Your task to perform on an android device: change keyboard looks Image 0: 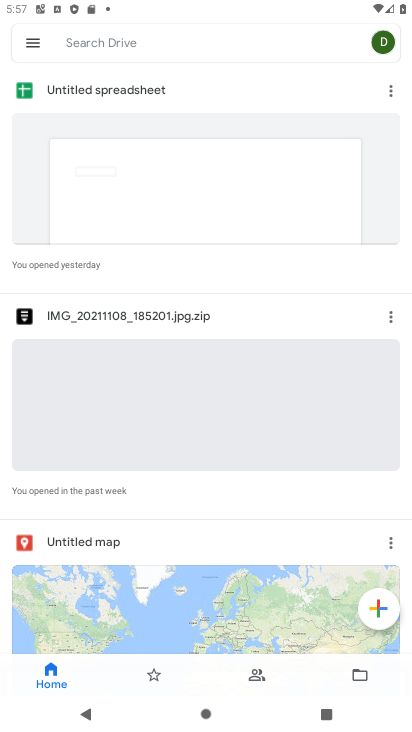
Step 0: drag from (315, 658) to (353, 161)
Your task to perform on an android device: change keyboard looks Image 1: 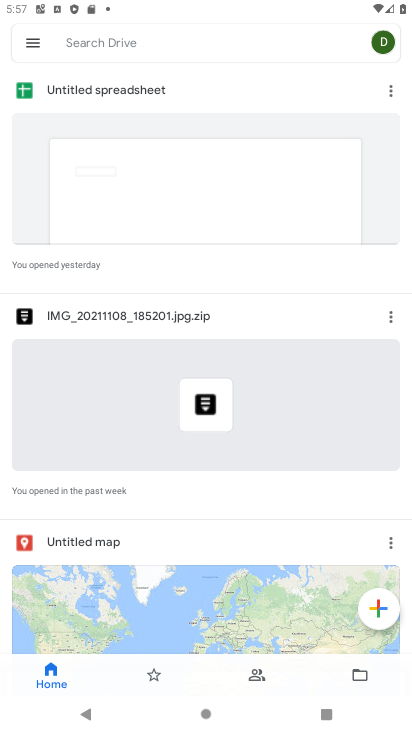
Step 1: press home button
Your task to perform on an android device: change keyboard looks Image 2: 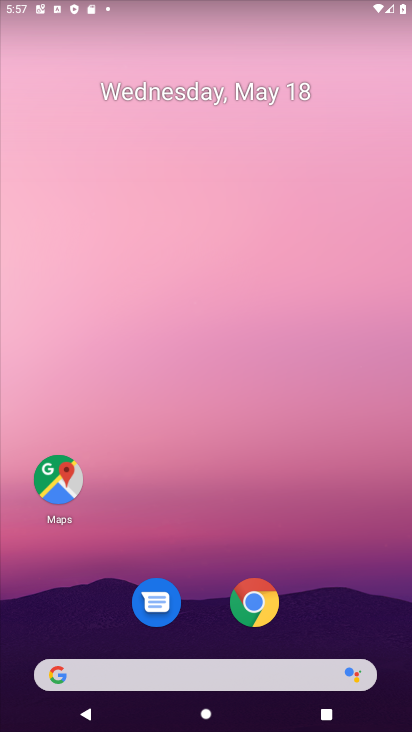
Step 2: drag from (271, 651) to (324, 26)
Your task to perform on an android device: change keyboard looks Image 3: 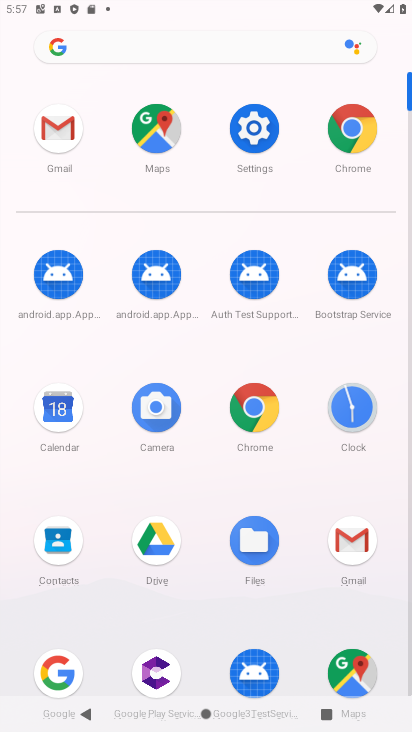
Step 3: click (267, 127)
Your task to perform on an android device: change keyboard looks Image 4: 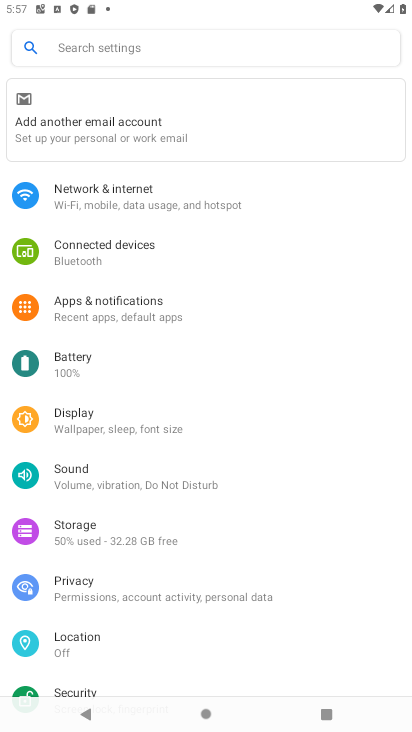
Step 4: drag from (237, 666) to (280, 127)
Your task to perform on an android device: change keyboard looks Image 5: 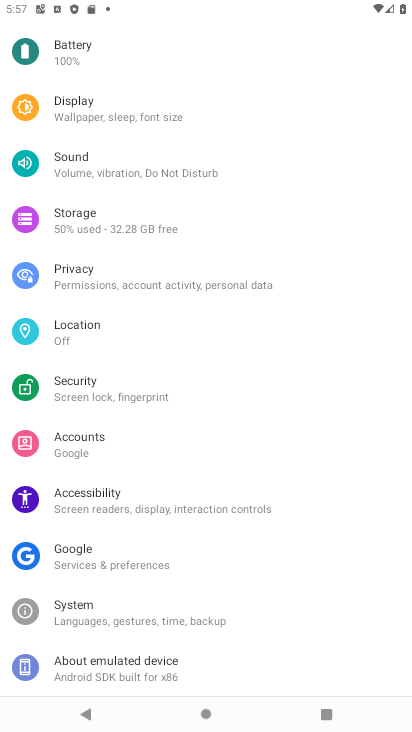
Step 5: click (215, 665)
Your task to perform on an android device: change keyboard looks Image 6: 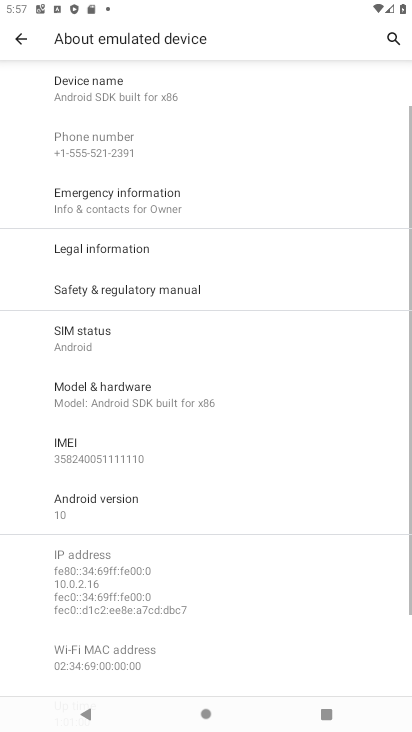
Step 6: press back button
Your task to perform on an android device: change keyboard looks Image 7: 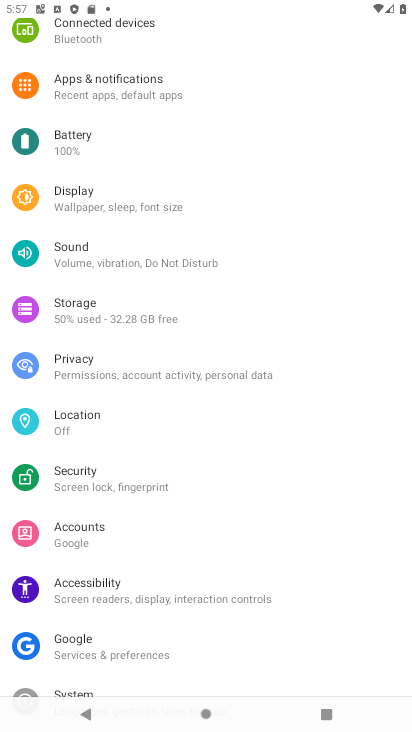
Step 7: drag from (108, 643) to (113, 222)
Your task to perform on an android device: change keyboard looks Image 8: 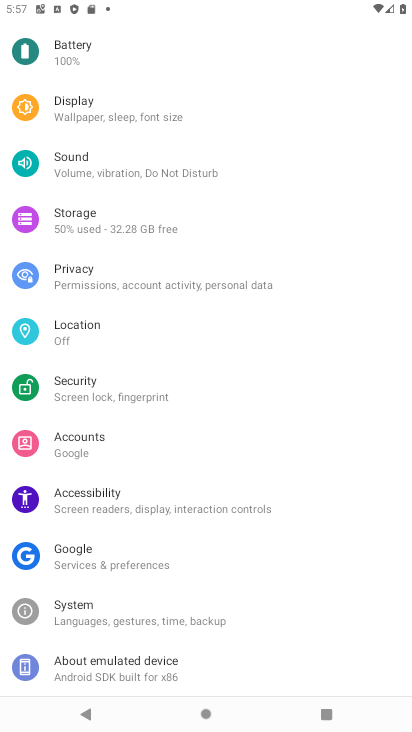
Step 8: click (95, 601)
Your task to perform on an android device: change keyboard looks Image 9: 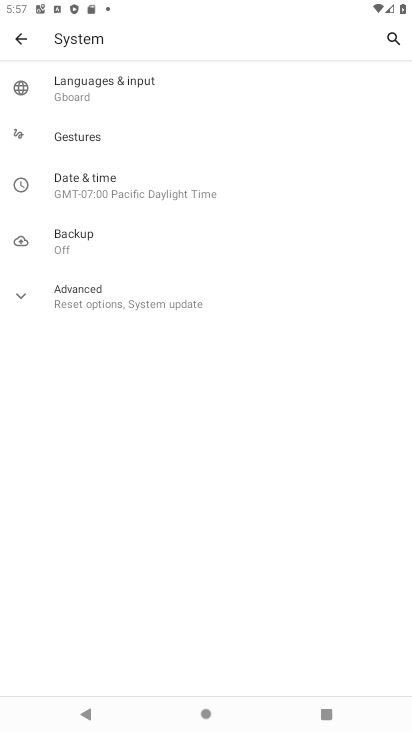
Step 9: click (157, 91)
Your task to perform on an android device: change keyboard looks Image 10: 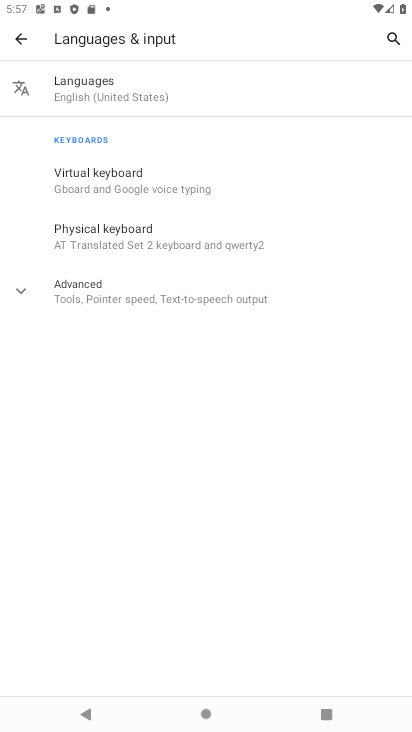
Step 10: click (151, 197)
Your task to perform on an android device: change keyboard looks Image 11: 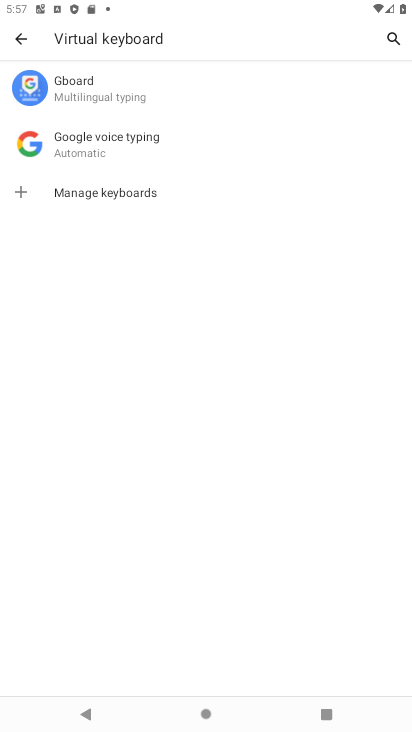
Step 11: click (127, 97)
Your task to perform on an android device: change keyboard looks Image 12: 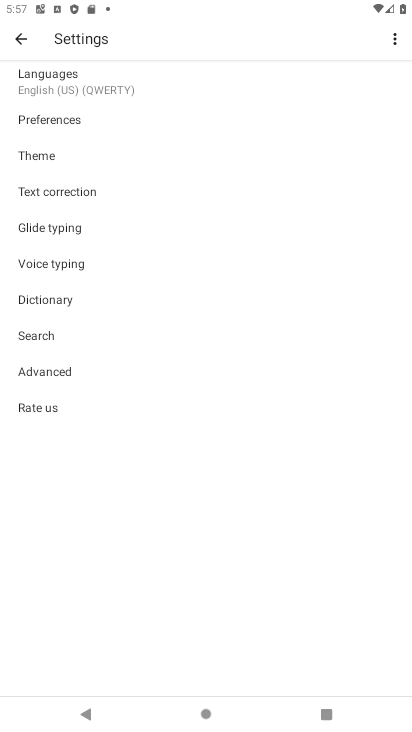
Step 12: click (61, 162)
Your task to perform on an android device: change keyboard looks Image 13: 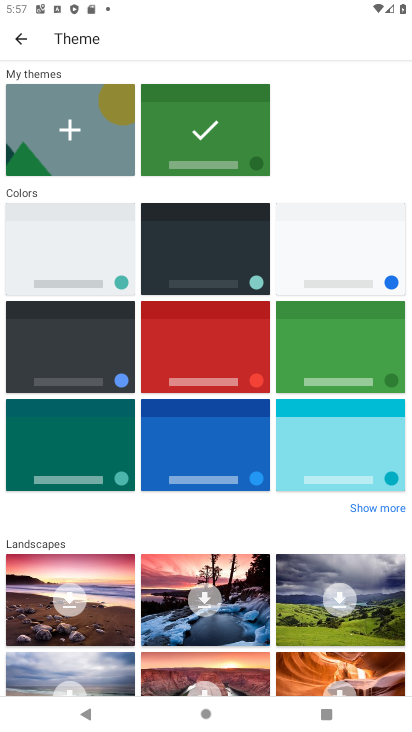
Step 13: click (208, 260)
Your task to perform on an android device: change keyboard looks Image 14: 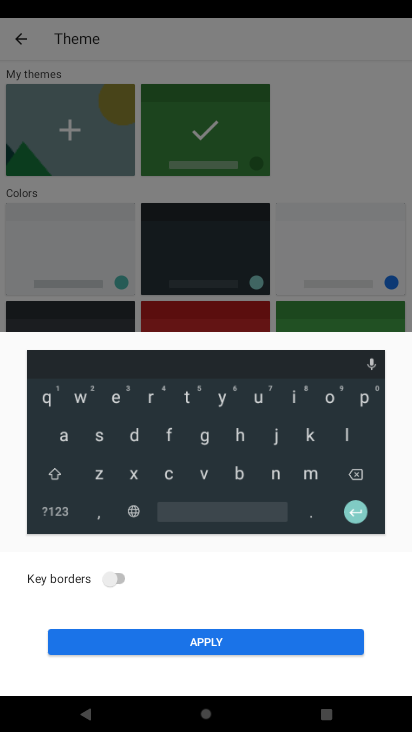
Step 14: click (254, 636)
Your task to perform on an android device: change keyboard looks Image 15: 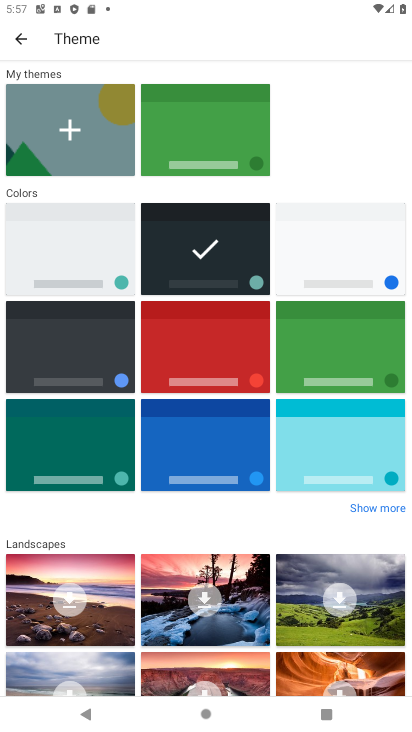
Step 15: task complete